Your task to perform on an android device: Open the Play Movies app and select the watchlist tab. Image 0: 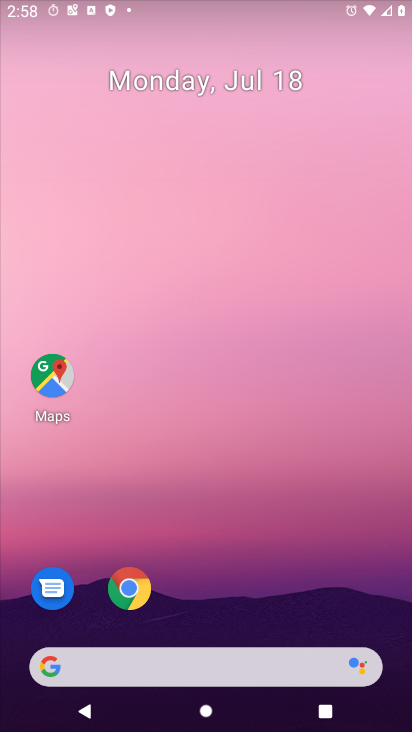
Step 0: drag from (230, 623) to (265, 152)
Your task to perform on an android device: Open the Play Movies app and select the watchlist tab. Image 1: 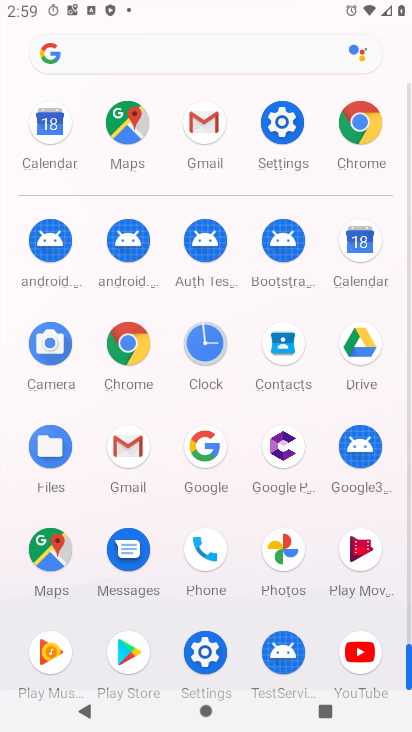
Step 1: click (359, 562)
Your task to perform on an android device: Open the Play Movies app and select the watchlist tab. Image 2: 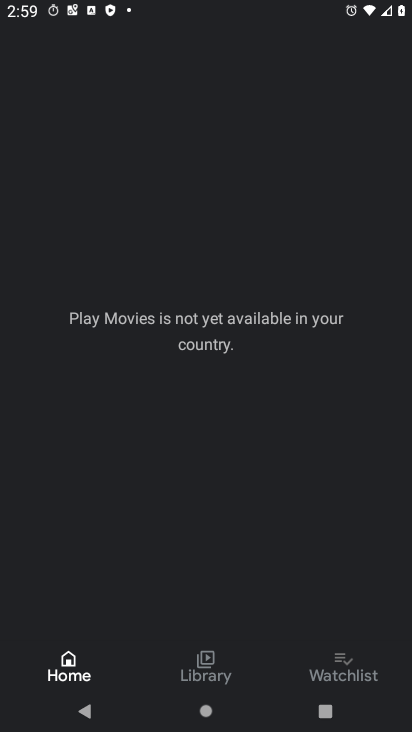
Step 2: click (343, 673)
Your task to perform on an android device: Open the Play Movies app and select the watchlist tab. Image 3: 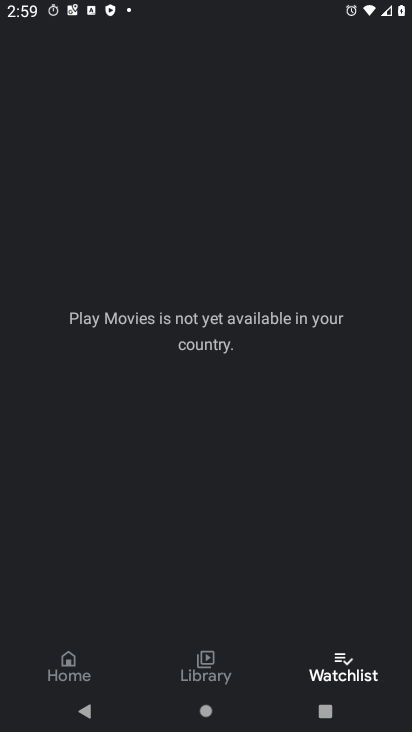
Step 3: task complete